Your task to perform on an android device: read, delete, or share a saved page in the chrome app Image 0: 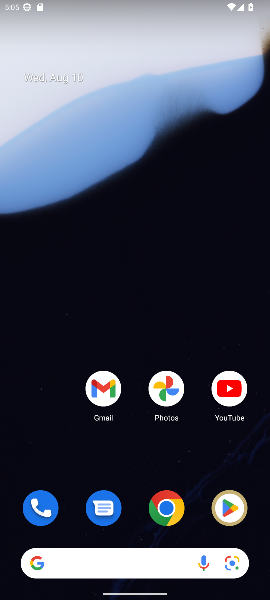
Step 0: press home button
Your task to perform on an android device: read, delete, or share a saved page in the chrome app Image 1: 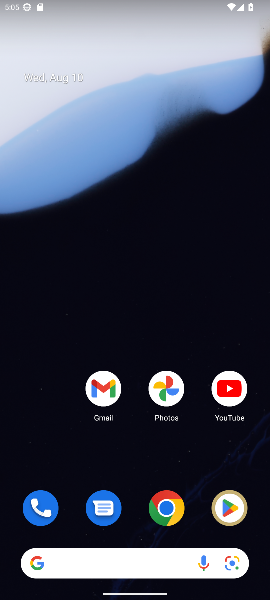
Step 1: click (164, 508)
Your task to perform on an android device: read, delete, or share a saved page in the chrome app Image 2: 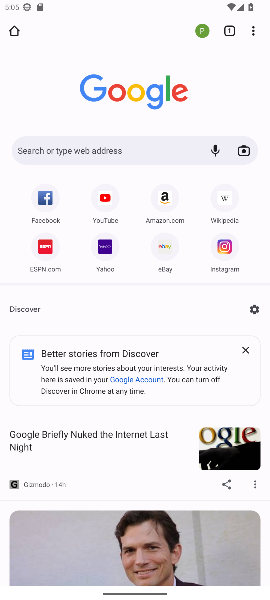
Step 2: drag from (253, 37) to (172, 147)
Your task to perform on an android device: read, delete, or share a saved page in the chrome app Image 3: 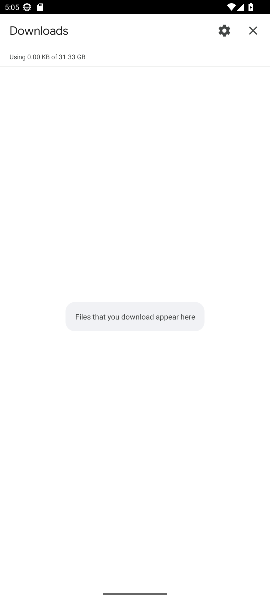
Step 3: click (67, 32)
Your task to perform on an android device: read, delete, or share a saved page in the chrome app Image 4: 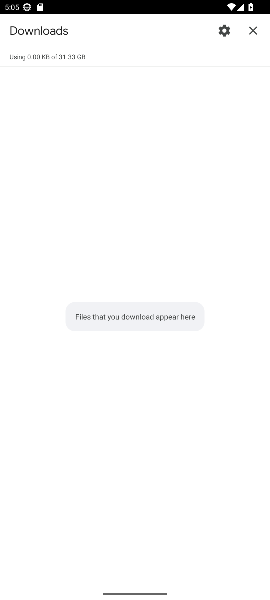
Step 4: task complete